Your task to perform on an android device: turn off javascript in the chrome app Image 0: 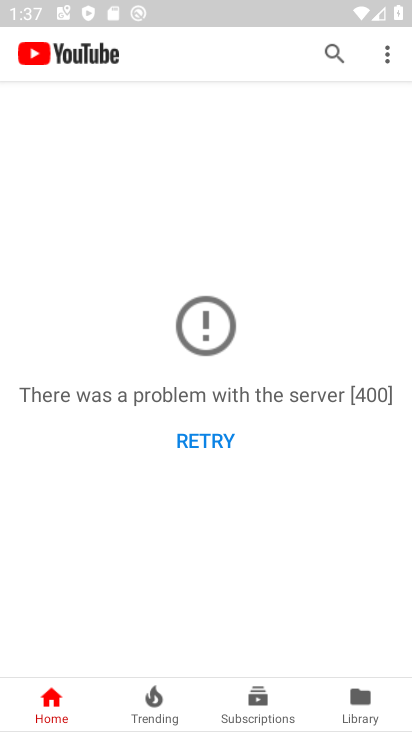
Step 0: press back button
Your task to perform on an android device: turn off javascript in the chrome app Image 1: 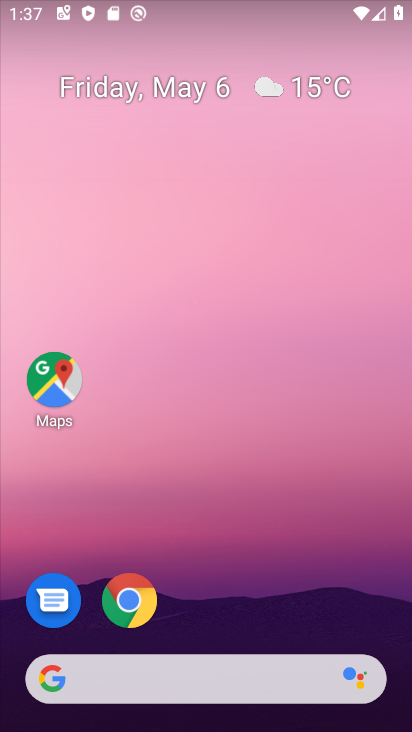
Step 1: drag from (249, 566) to (283, 53)
Your task to perform on an android device: turn off javascript in the chrome app Image 2: 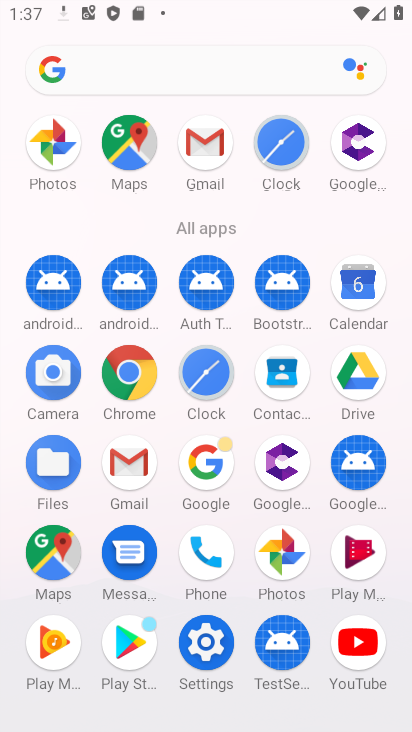
Step 2: click (127, 371)
Your task to perform on an android device: turn off javascript in the chrome app Image 3: 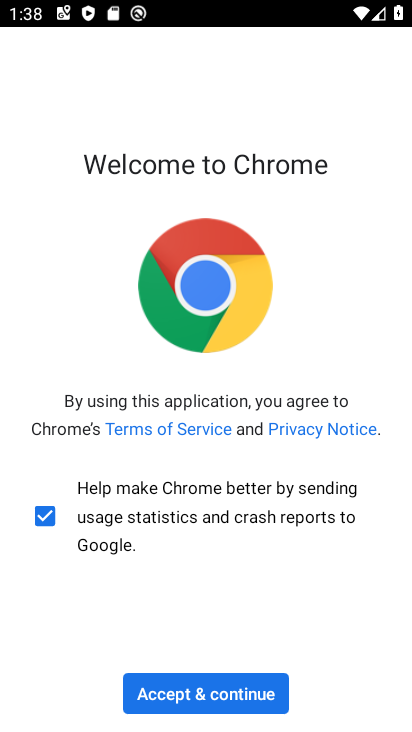
Step 3: click (230, 688)
Your task to perform on an android device: turn off javascript in the chrome app Image 4: 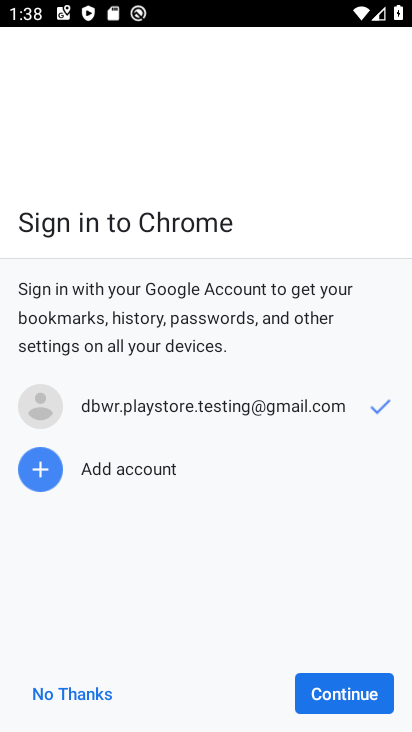
Step 4: click (339, 685)
Your task to perform on an android device: turn off javascript in the chrome app Image 5: 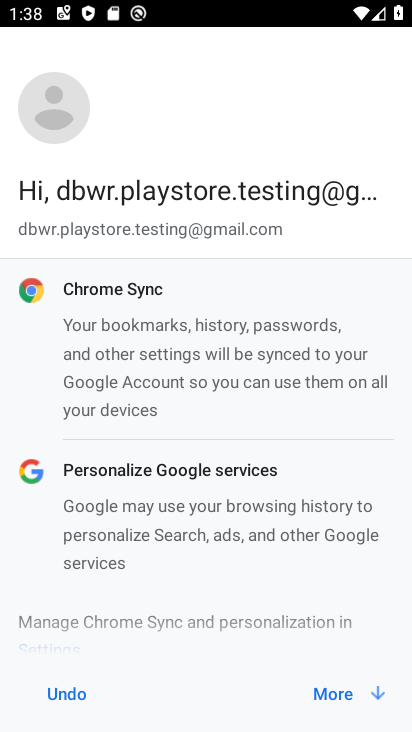
Step 5: click (324, 691)
Your task to perform on an android device: turn off javascript in the chrome app Image 6: 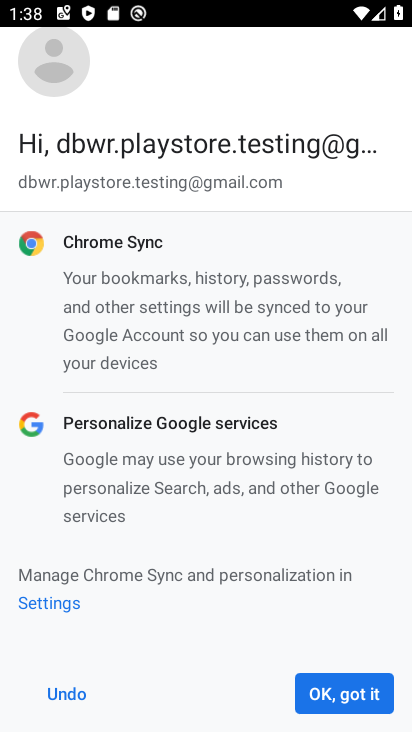
Step 6: click (322, 691)
Your task to perform on an android device: turn off javascript in the chrome app Image 7: 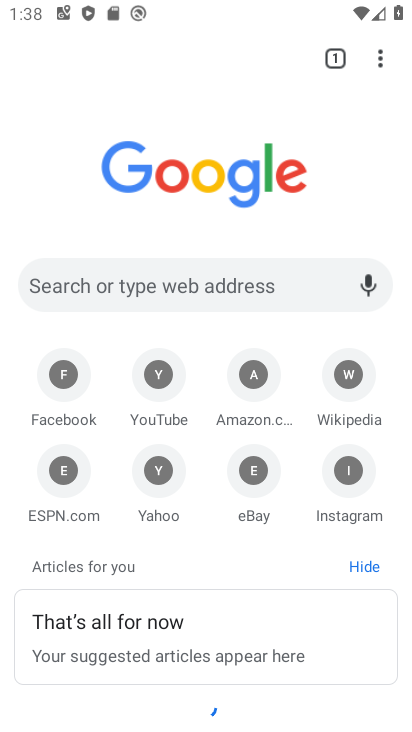
Step 7: drag from (378, 59) to (199, 498)
Your task to perform on an android device: turn off javascript in the chrome app Image 8: 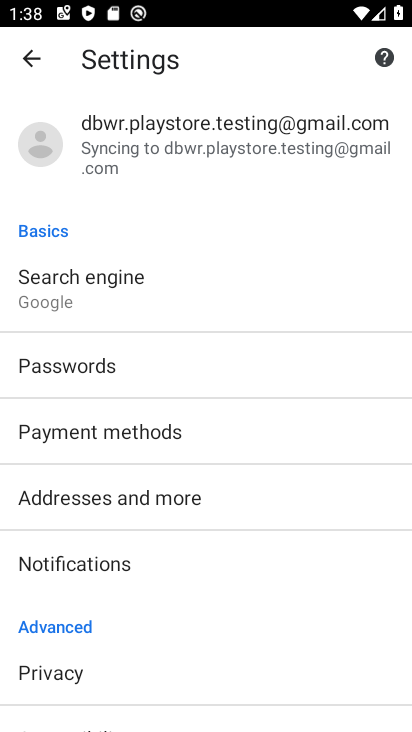
Step 8: drag from (169, 576) to (267, 134)
Your task to perform on an android device: turn off javascript in the chrome app Image 9: 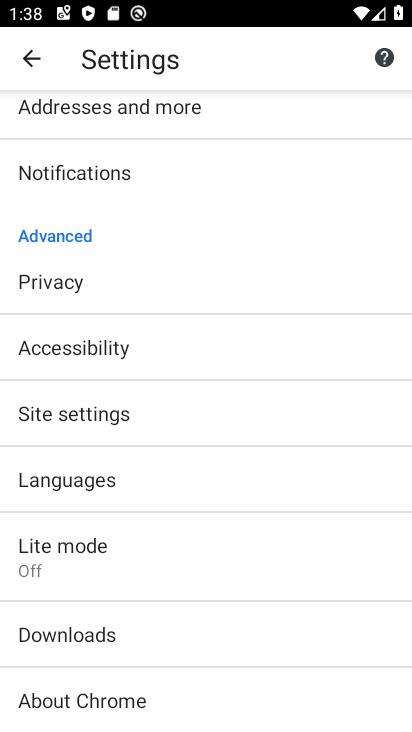
Step 9: drag from (222, 560) to (266, 220)
Your task to perform on an android device: turn off javascript in the chrome app Image 10: 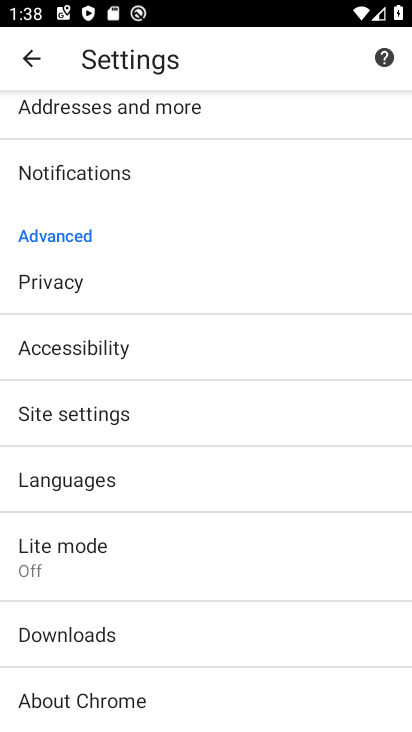
Step 10: click (110, 397)
Your task to perform on an android device: turn off javascript in the chrome app Image 11: 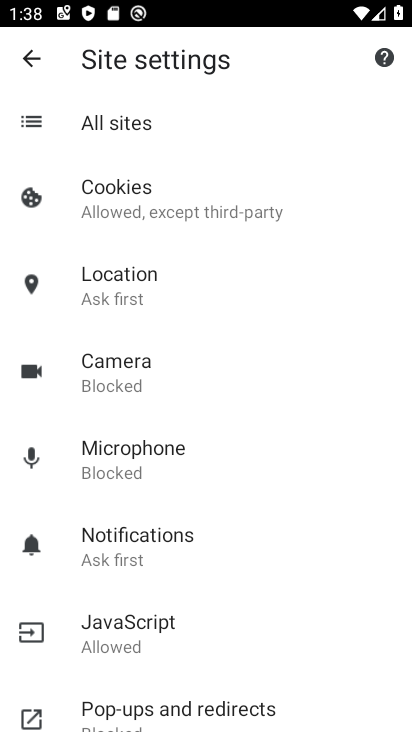
Step 11: drag from (214, 591) to (282, 200)
Your task to perform on an android device: turn off javascript in the chrome app Image 12: 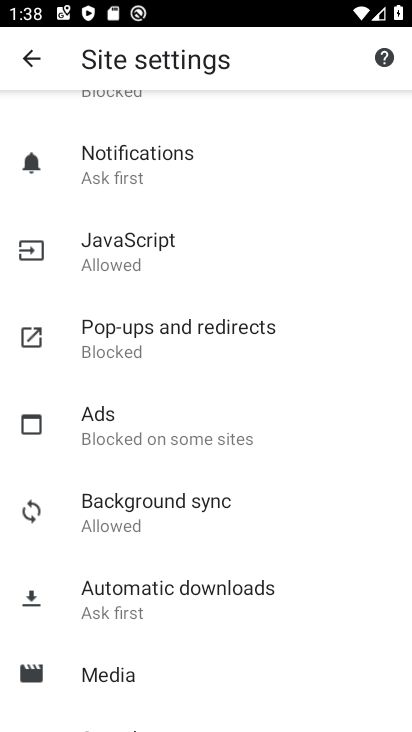
Step 12: click (198, 252)
Your task to perform on an android device: turn off javascript in the chrome app Image 13: 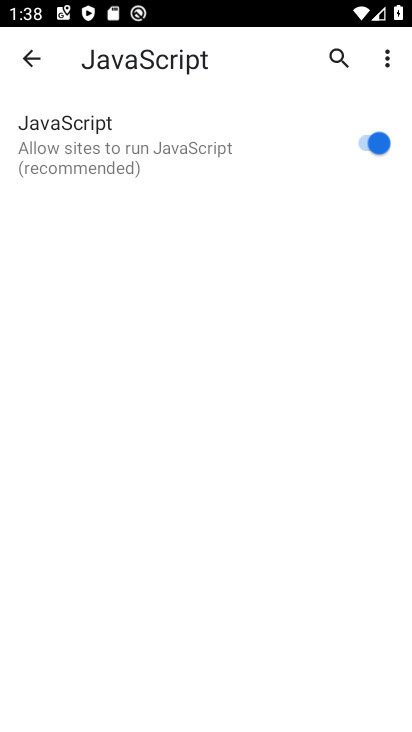
Step 13: click (385, 140)
Your task to perform on an android device: turn off javascript in the chrome app Image 14: 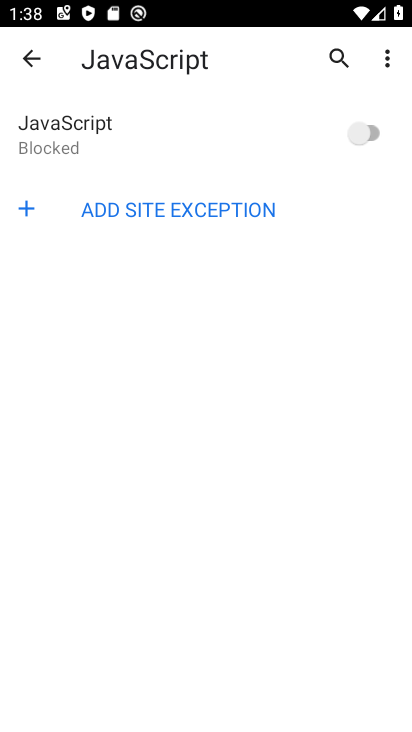
Step 14: task complete